Your task to perform on an android device: Open Chrome and go to settings Image 0: 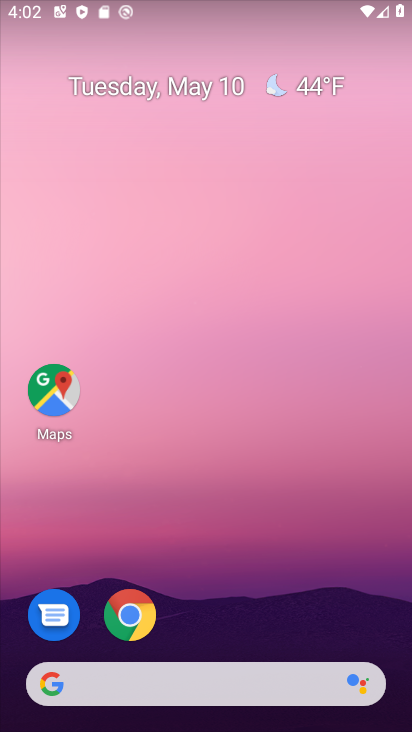
Step 0: click (130, 611)
Your task to perform on an android device: Open Chrome and go to settings Image 1: 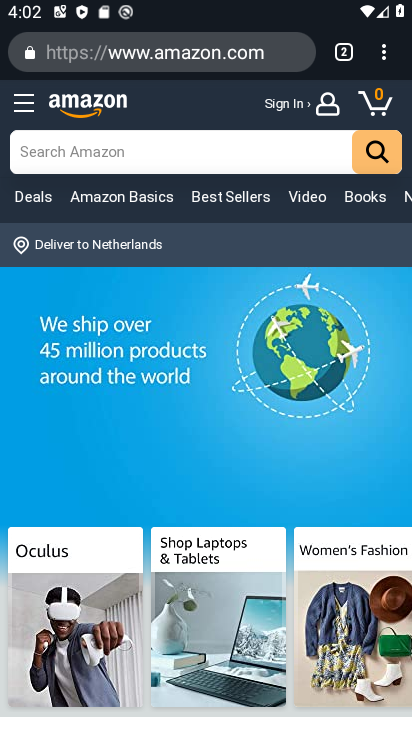
Step 1: click (385, 59)
Your task to perform on an android device: Open Chrome and go to settings Image 2: 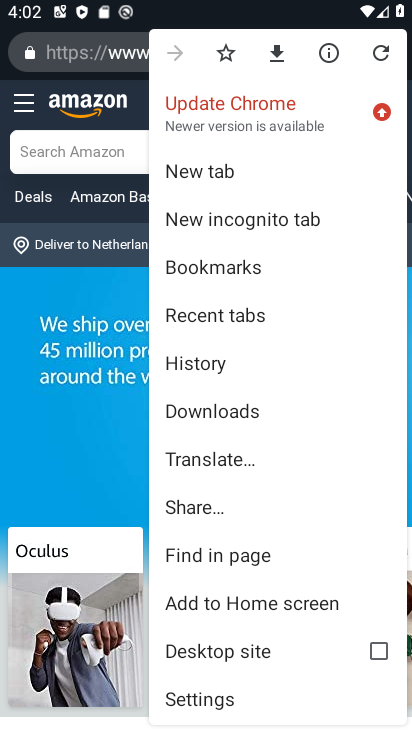
Step 2: click (207, 702)
Your task to perform on an android device: Open Chrome and go to settings Image 3: 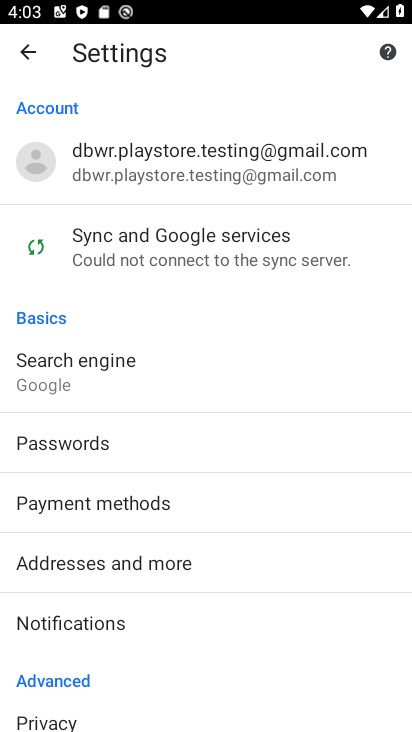
Step 3: task complete